Your task to perform on an android device: toggle priority inbox in the gmail app Image 0: 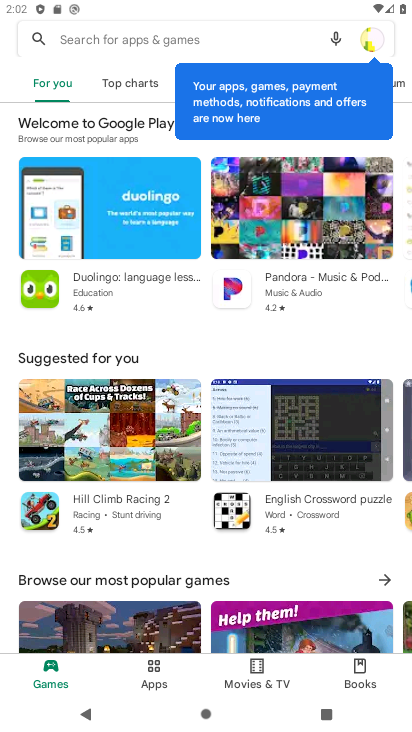
Step 0: press back button
Your task to perform on an android device: toggle priority inbox in the gmail app Image 1: 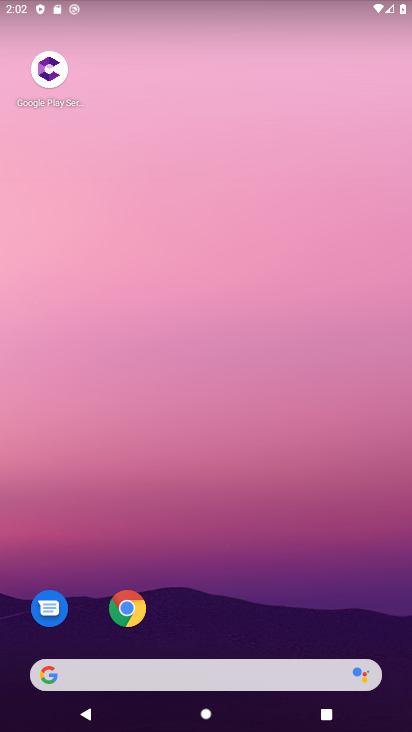
Step 1: drag from (256, 654) to (276, 165)
Your task to perform on an android device: toggle priority inbox in the gmail app Image 2: 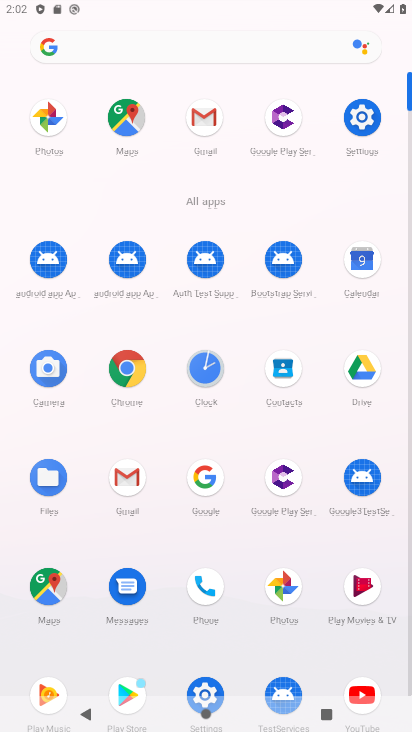
Step 2: click (132, 491)
Your task to perform on an android device: toggle priority inbox in the gmail app Image 3: 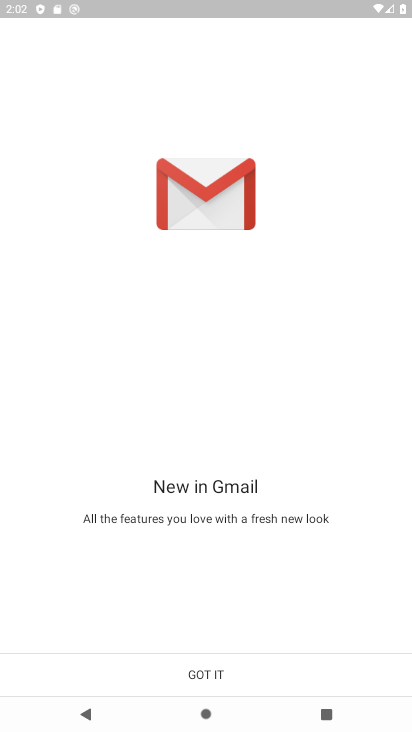
Step 3: click (232, 676)
Your task to perform on an android device: toggle priority inbox in the gmail app Image 4: 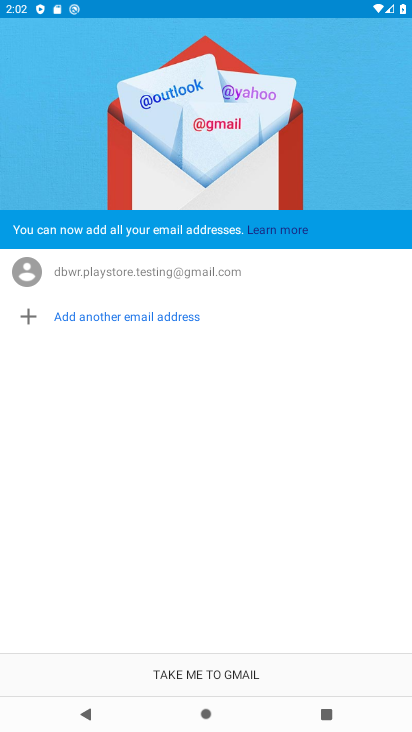
Step 4: click (232, 676)
Your task to perform on an android device: toggle priority inbox in the gmail app Image 5: 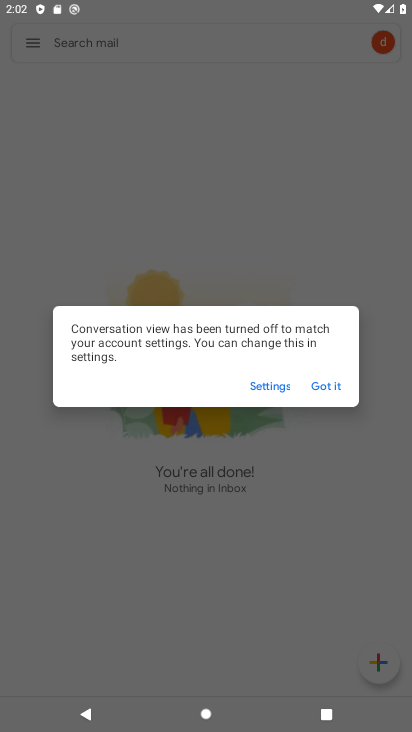
Step 5: click (331, 393)
Your task to perform on an android device: toggle priority inbox in the gmail app Image 6: 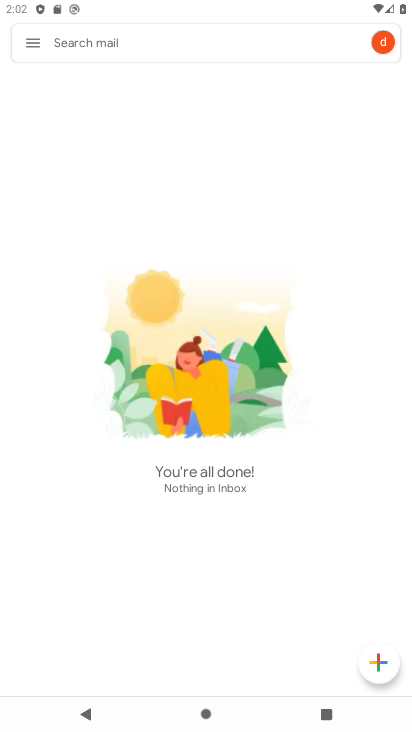
Step 6: click (34, 53)
Your task to perform on an android device: toggle priority inbox in the gmail app Image 7: 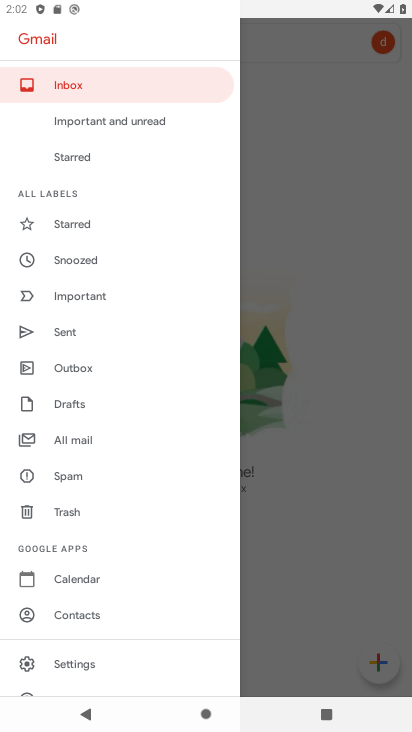
Step 7: drag from (124, 613) to (158, 488)
Your task to perform on an android device: toggle priority inbox in the gmail app Image 8: 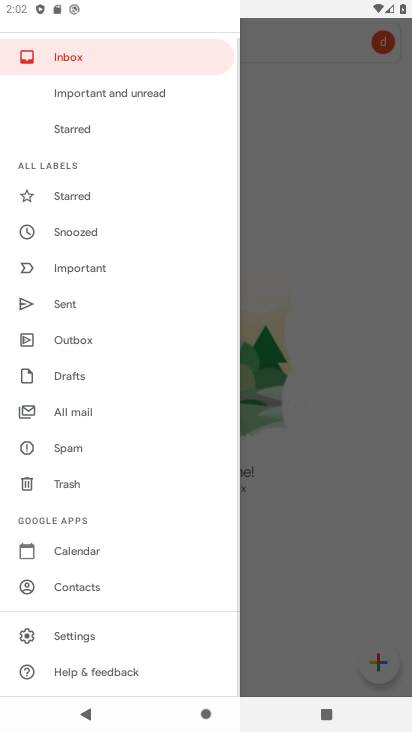
Step 8: click (127, 645)
Your task to perform on an android device: toggle priority inbox in the gmail app Image 9: 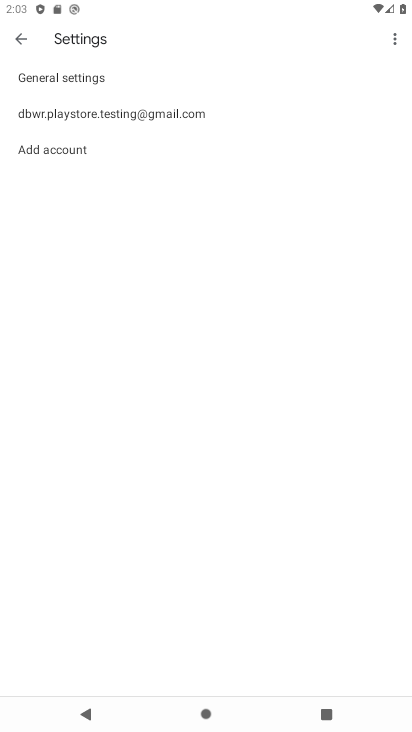
Step 9: click (236, 117)
Your task to perform on an android device: toggle priority inbox in the gmail app Image 10: 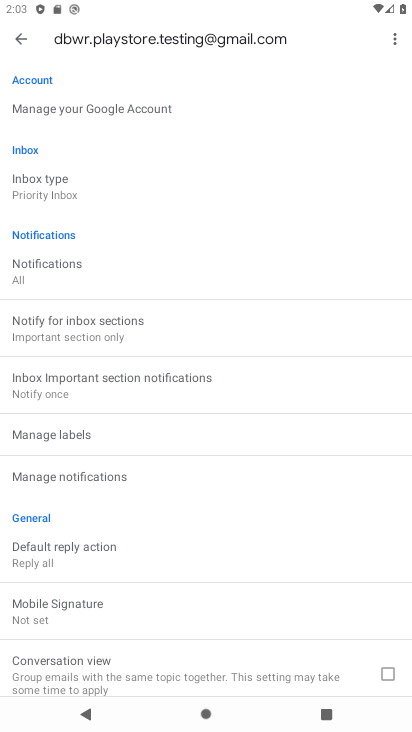
Step 10: click (184, 196)
Your task to perform on an android device: toggle priority inbox in the gmail app Image 11: 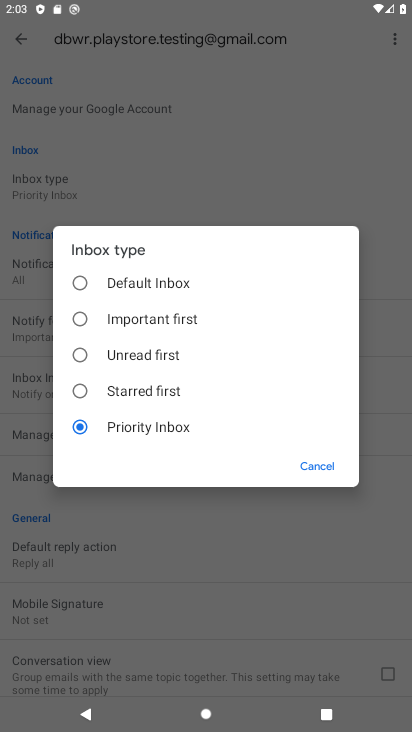
Step 11: click (170, 316)
Your task to perform on an android device: toggle priority inbox in the gmail app Image 12: 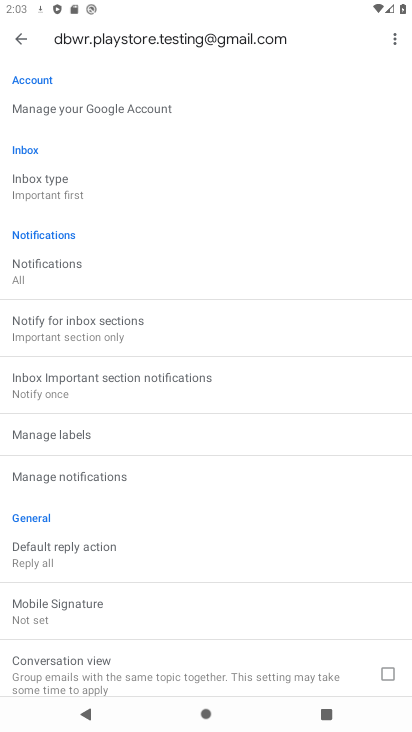
Step 12: task complete